Your task to perform on an android device: check android version Image 0: 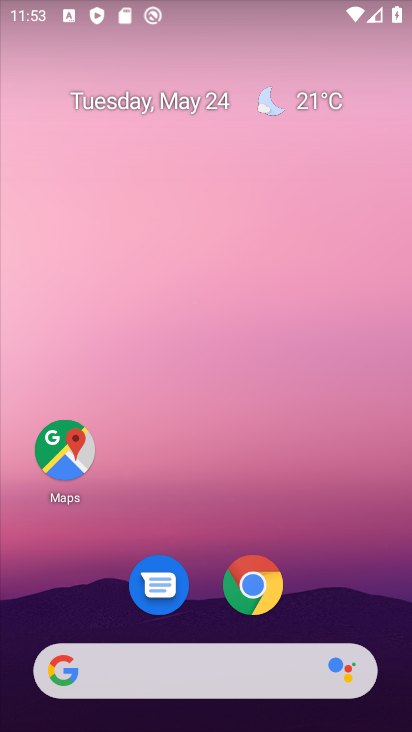
Step 0: drag from (222, 497) to (242, 24)
Your task to perform on an android device: check android version Image 1: 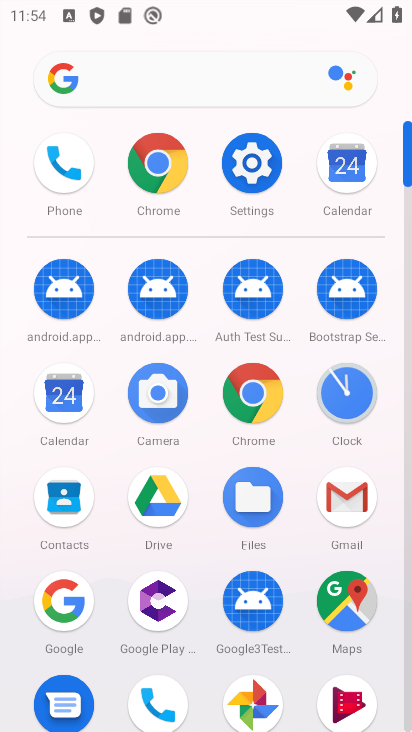
Step 1: click (240, 151)
Your task to perform on an android device: check android version Image 2: 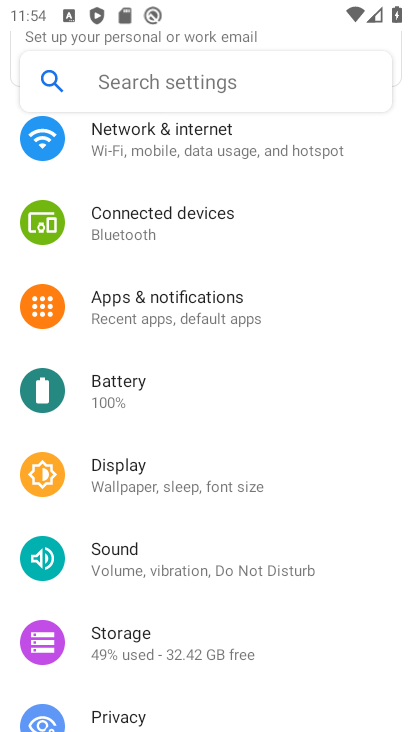
Step 2: drag from (222, 598) to (266, 9)
Your task to perform on an android device: check android version Image 3: 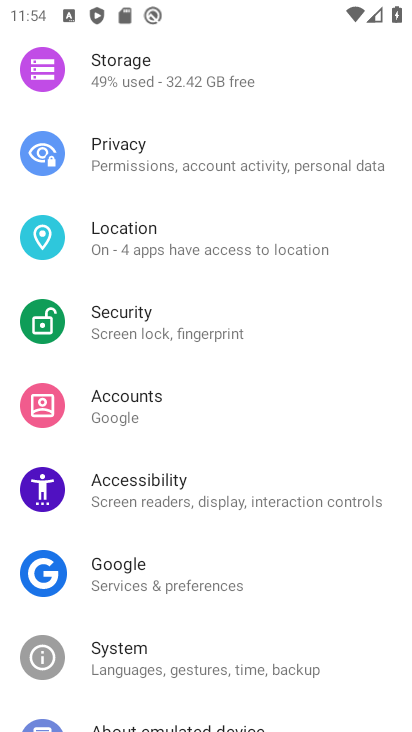
Step 3: drag from (217, 523) to (254, 263)
Your task to perform on an android device: check android version Image 4: 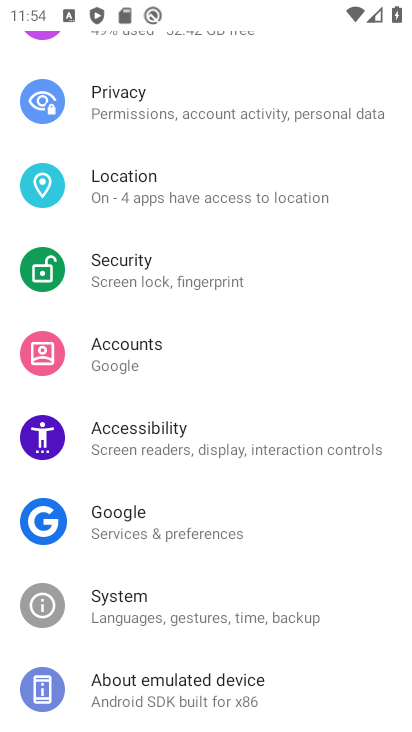
Step 4: click (199, 667)
Your task to perform on an android device: check android version Image 5: 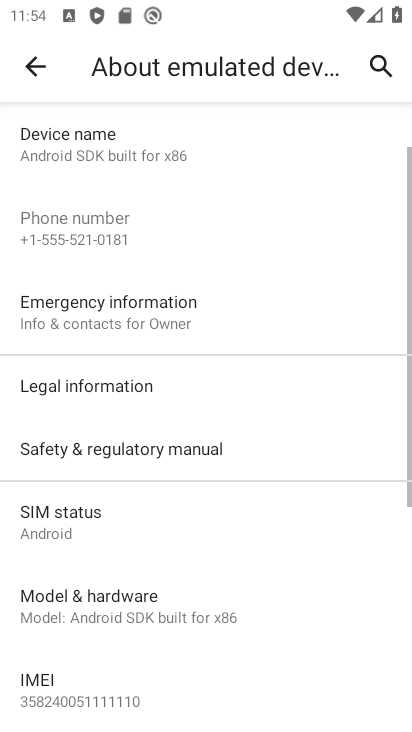
Step 5: drag from (230, 551) to (254, 224)
Your task to perform on an android device: check android version Image 6: 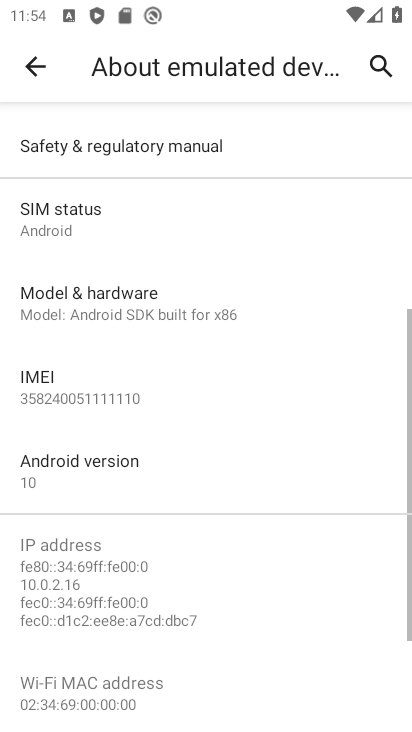
Step 6: click (166, 486)
Your task to perform on an android device: check android version Image 7: 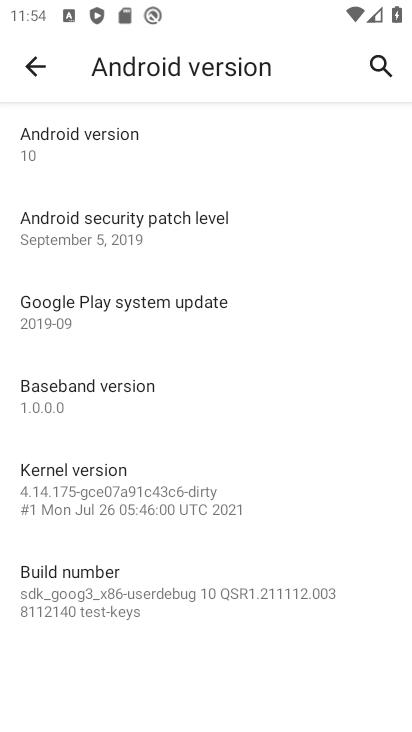
Step 7: task complete